Your task to perform on an android device: search for starred emails in the gmail app Image 0: 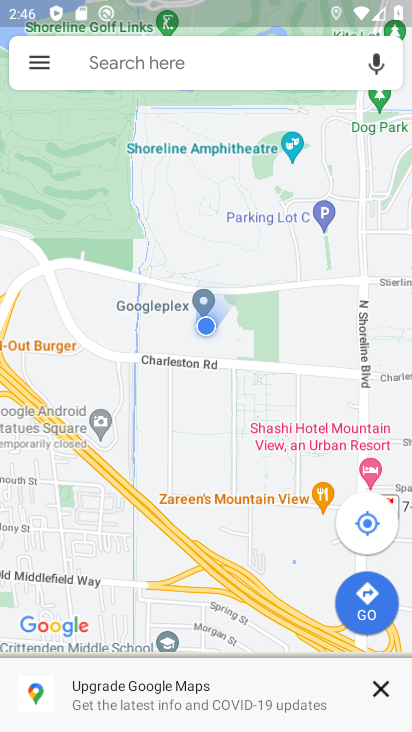
Step 0: press home button
Your task to perform on an android device: search for starred emails in the gmail app Image 1: 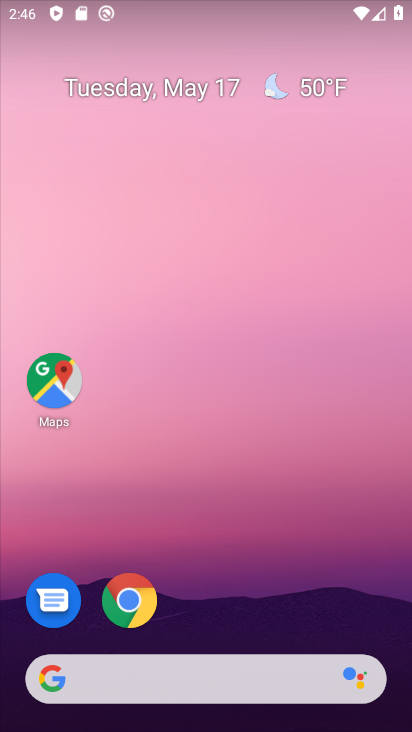
Step 1: drag from (276, 611) to (281, 237)
Your task to perform on an android device: search for starred emails in the gmail app Image 2: 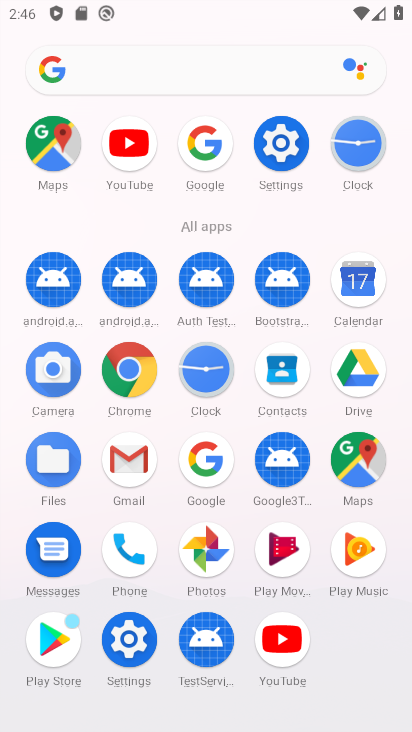
Step 2: click (130, 464)
Your task to perform on an android device: search for starred emails in the gmail app Image 3: 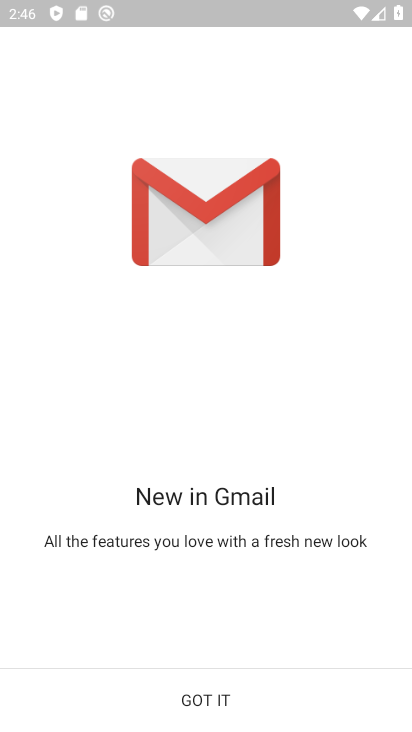
Step 3: click (189, 694)
Your task to perform on an android device: search for starred emails in the gmail app Image 4: 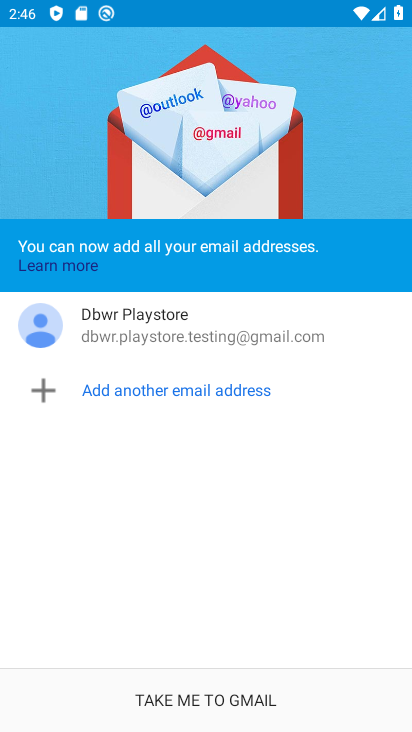
Step 4: click (155, 713)
Your task to perform on an android device: search for starred emails in the gmail app Image 5: 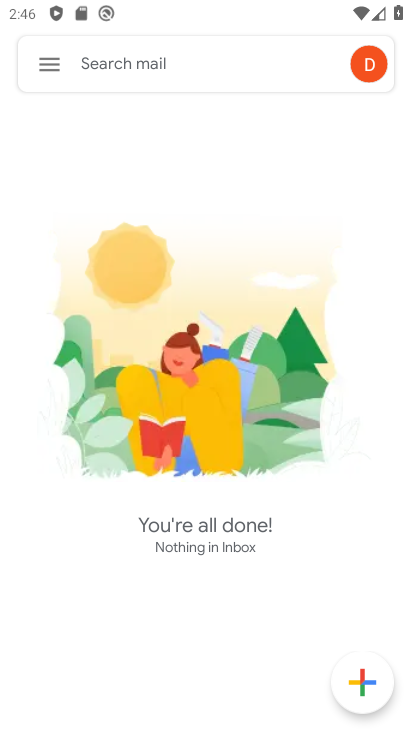
Step 5: click (43, 51)
Your task to perform on an android device: search for starred emails in the gmail app Image 6: 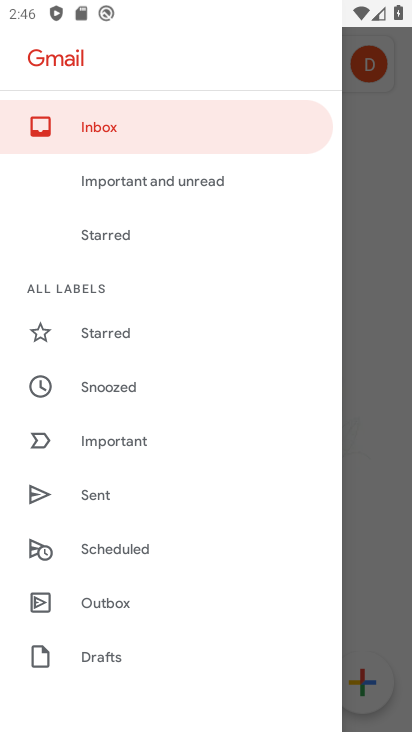
Step 6: click (121, 338)
Your task to perform on an android device: search for starred emails in the gmail app Image 7: 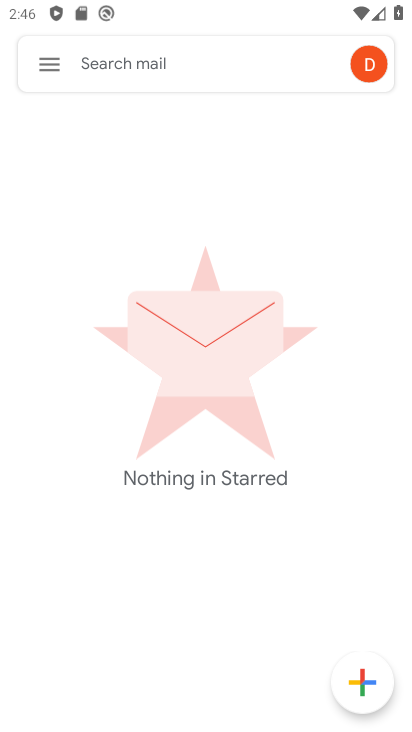
Step 7: task complete